Your task to perform on an android device: Go to calendar. Show me events next week Image 0: 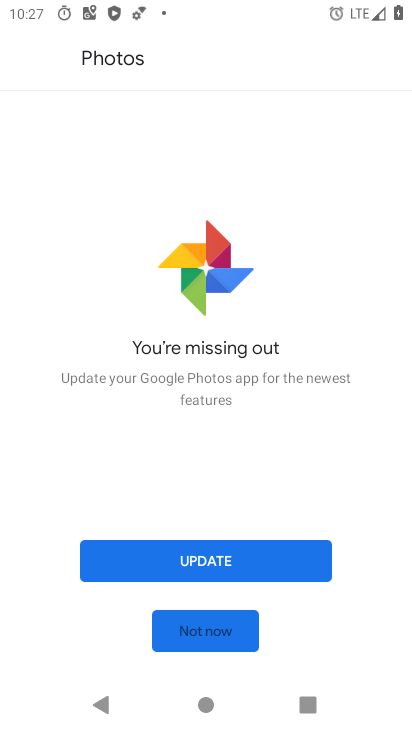
Step 0: press back button
Your task to perform on an android device: Go to calendar. Show me events next week Image 1: 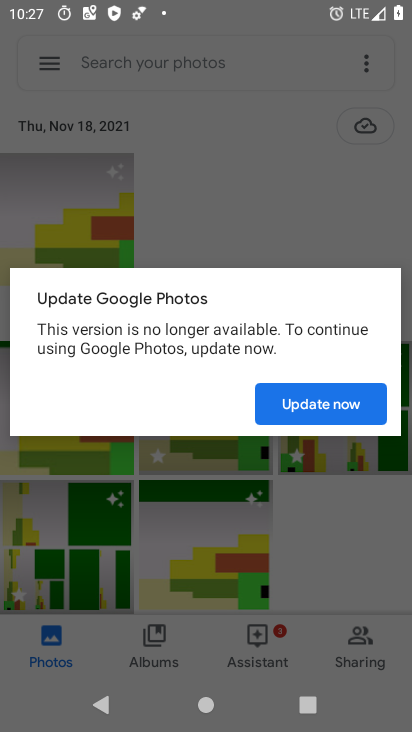
Step 1: press home button
Your task to perform on an android device: Go to calendar. Show me events next week Image 2: 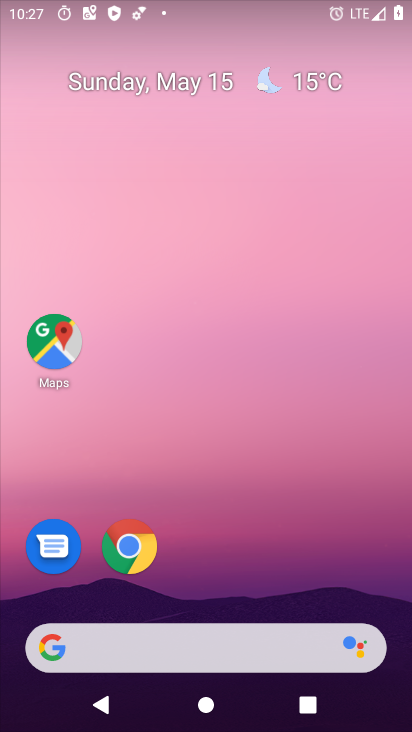
Step 2: drag from (351, 670) to (153, 199)
Your task to perform on an android device: Go to calendar. Show me events next week Image 3: 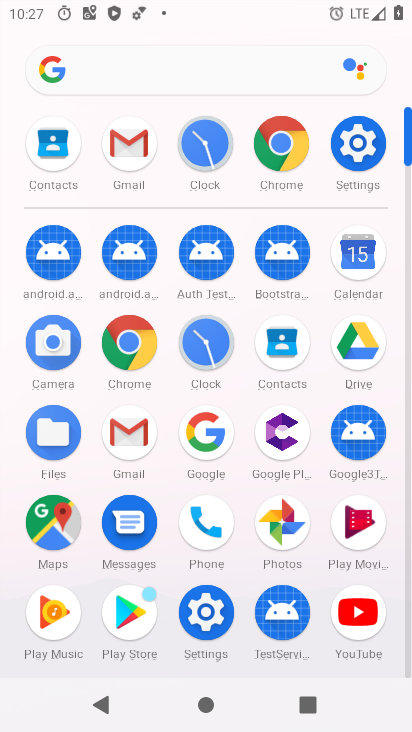
Step 3: click (352, 248)
Your task to perform on an android device: Go to calendar. Show me events next week Image 4: 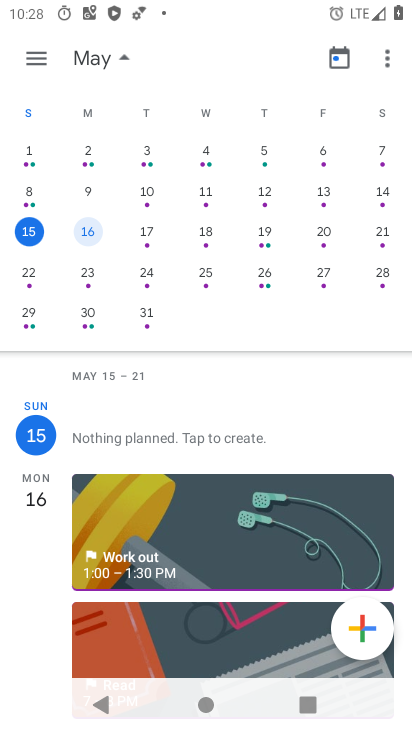
Step 4: drag from (49, 245) to (403, 268)
Your task to perform on an android device: Go to calendar. Show me events next week Image 5: 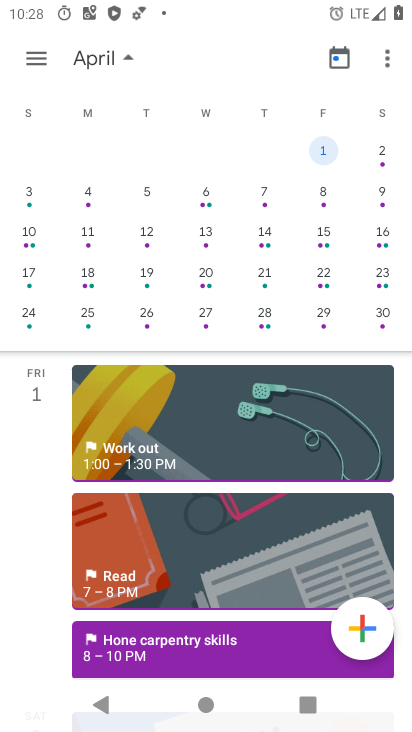
Step 5: drag from (290, 222) to (1, 252)
Your task to perform on an android device: Go to calendar. Show me events next week Image 6: 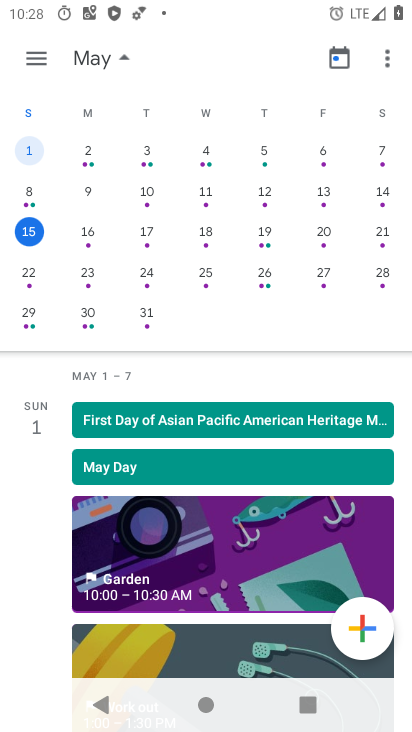
Step 6: click (87, 312)
Your task to perform on an android device: Go to calendar. Show me events next week Image 7: 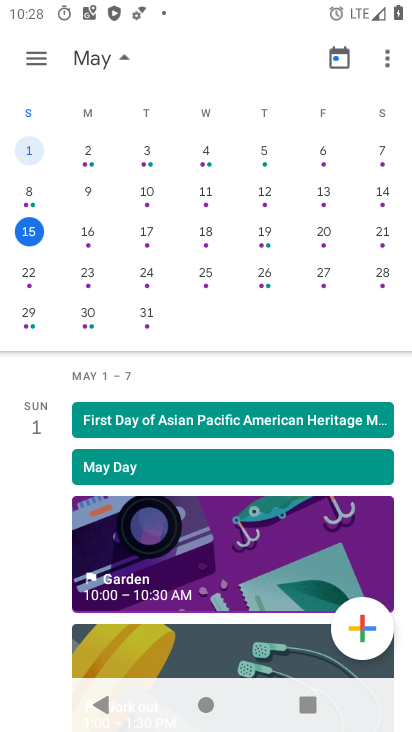
Step 7: click (87, 312)
Your task to perform on an android device: Go to calendar. Show me events next week Image 8: 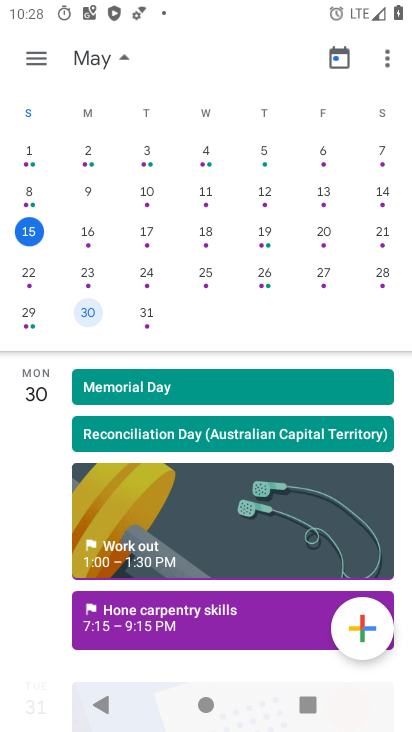
Step 8: click (83, 268)
Your task to perform on an android device: Go to calendar. Show me events next week Image 9: 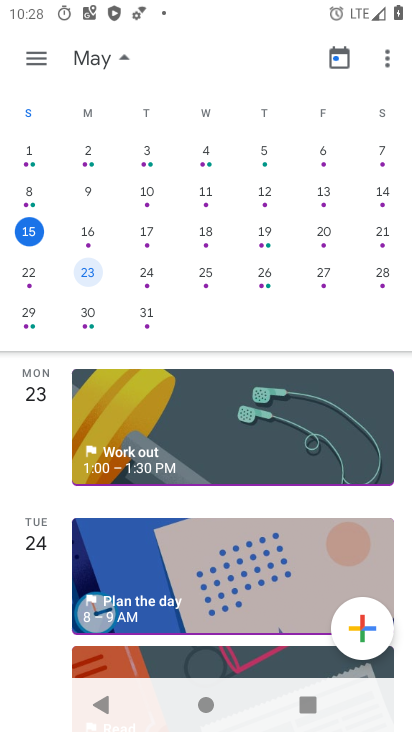
Step 9: click (141, 446)
Your task to perform on an android device: Go to calendar. Show me events next week Image 10: 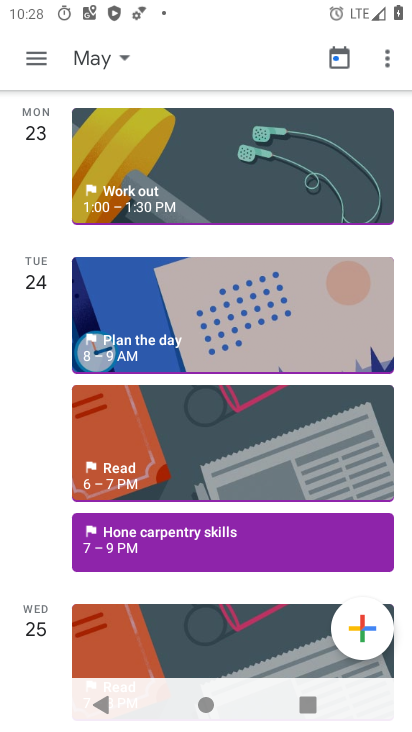
Step 10: click (109, 174)
Your task to perform on an android device: Go to calendar. Show me events next week Image 11: 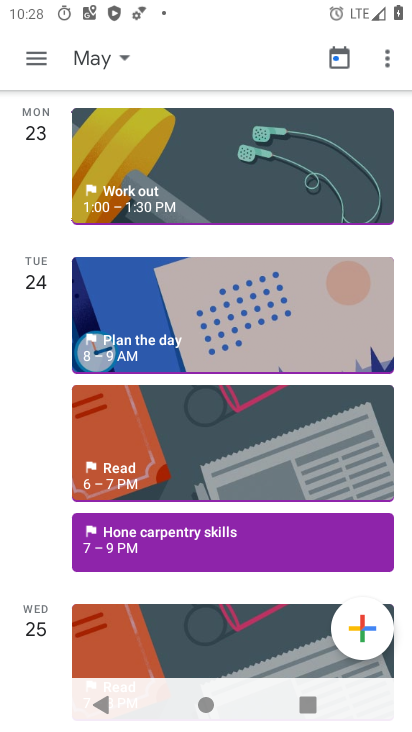
Step 11: click (109, 174)
Your task to perform on an android device: Go to calendar. Show me events next week Image 12: 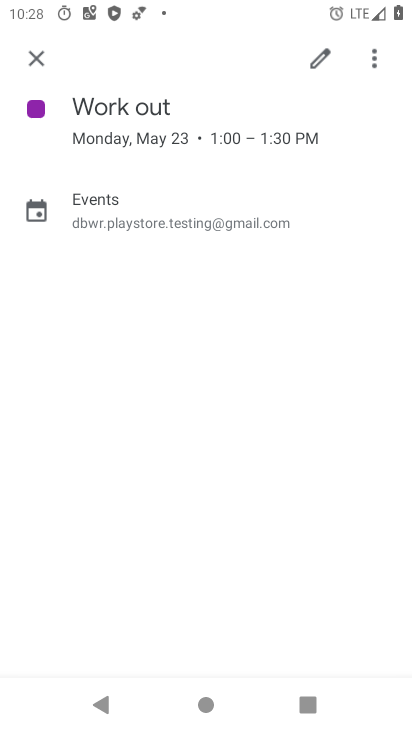
Step 12: click (109, 174)
Your task to perform on an android device: Go to calendar. Show me events next week Image 13: 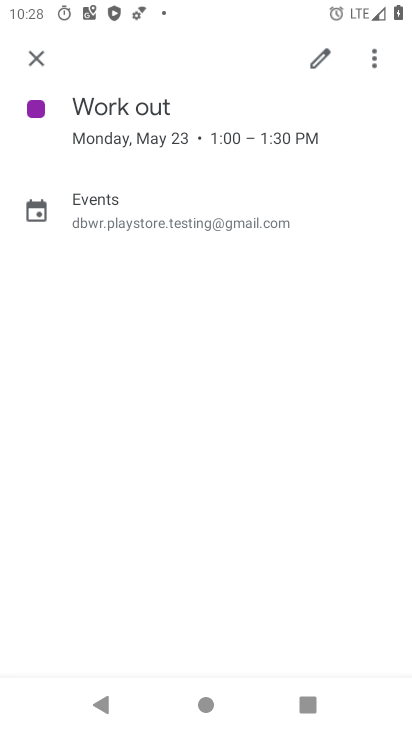
Step 13: task complete